Your task to perform on an android device: What's on my calendar tomorrow? Image 0: 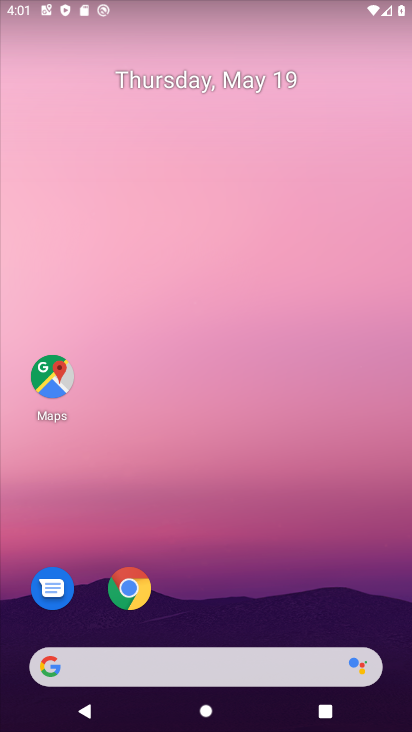
Step 0: click (167, 62)
Your task to perform on an android device: What's on my calendar tomorrow? Image 1: 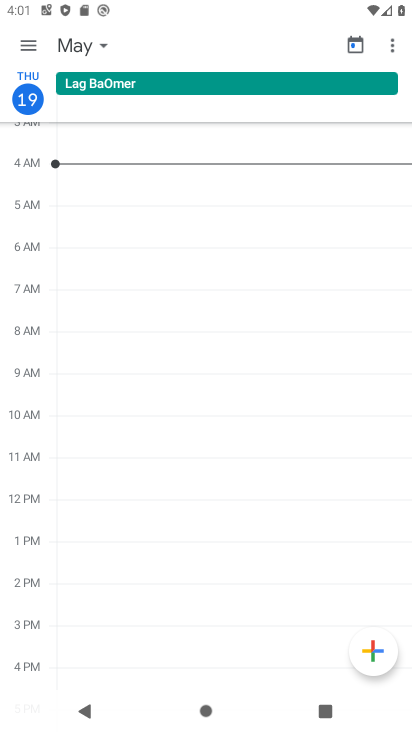
Step 1: click (87, 42)
Your task to perform on an android device: What's on my calendar tomorrow? Image 2: 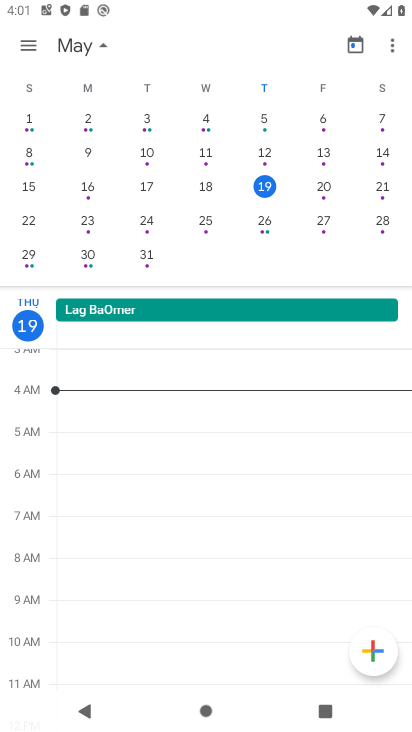
Step 2: click (321, 187)
Your task to perform on an android device: What's on my calendar tomorrow? Image 3: 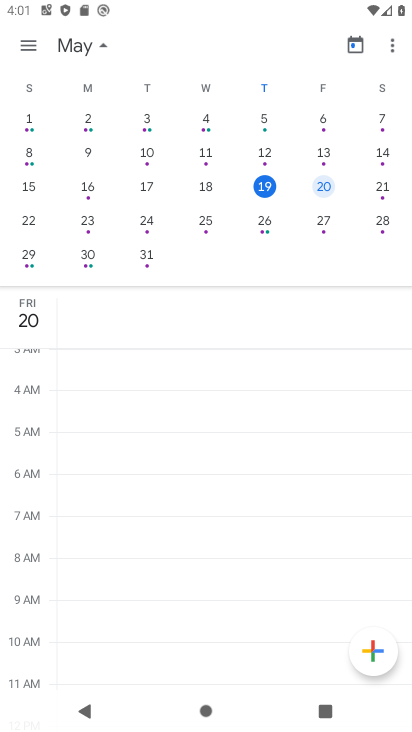
Step 3: click (39, 37)
Your task to perform on an android device: What's on my calendar tomorrow? Image 4: 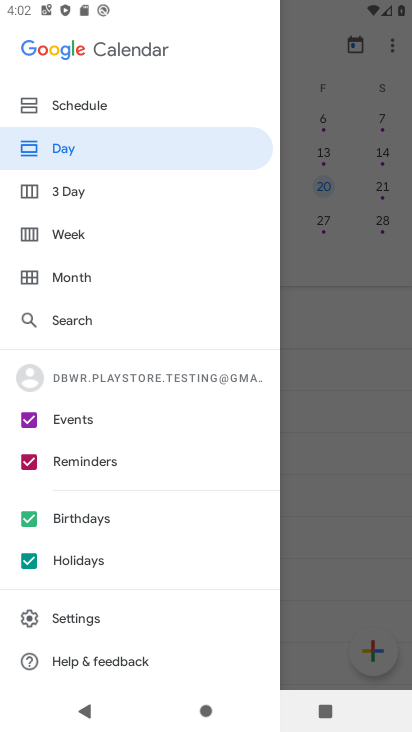
Step 4: click (85, 112)
Your task to perform on an android device: What's on my calendar tomorrow? Image 5: 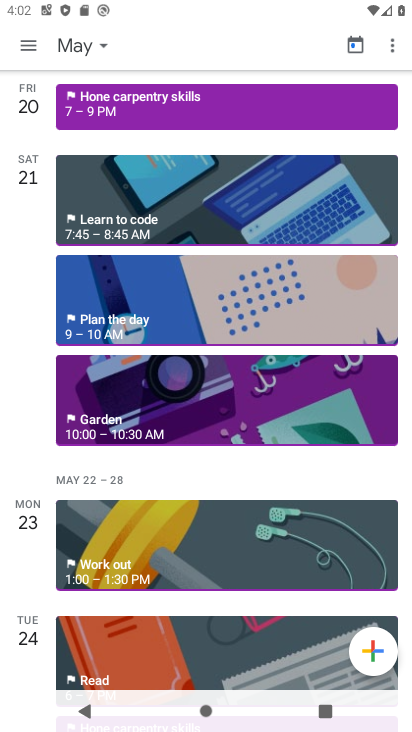
Step 5: task complete